Your task to perform on an android device: Open calendar and show me the fourth week of next month Image 0: 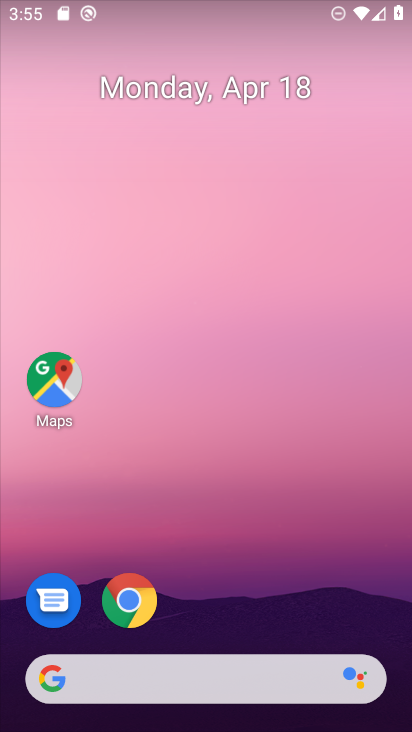
Step 0: drag from (254, 412) to (242, 151)
Your task to perform on an android device: Open calendar and show me the fourth week of next month Image 1: 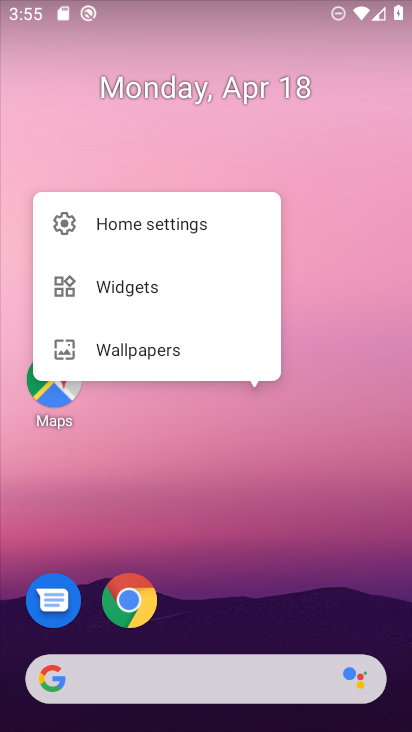
Step 1: click (359, 371)
Your task to perform on an android device: Open calendar and show me the fourth week of next month Image 2: 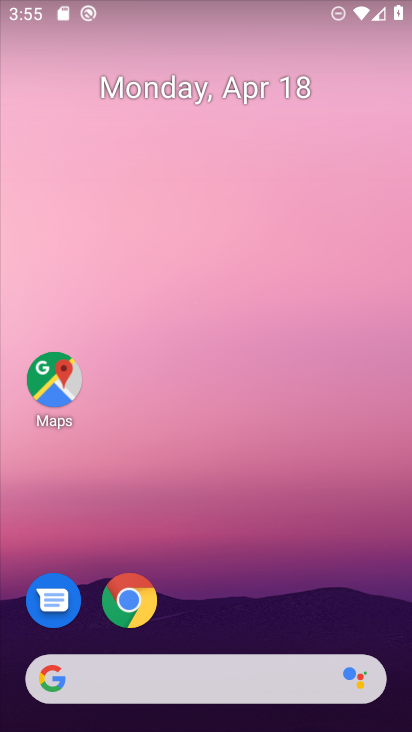
Step 2: drag from (202, 707) to (180, 153)
Your task to perform on an android device: Open calendar and show me the fourth week of next month Image 3: 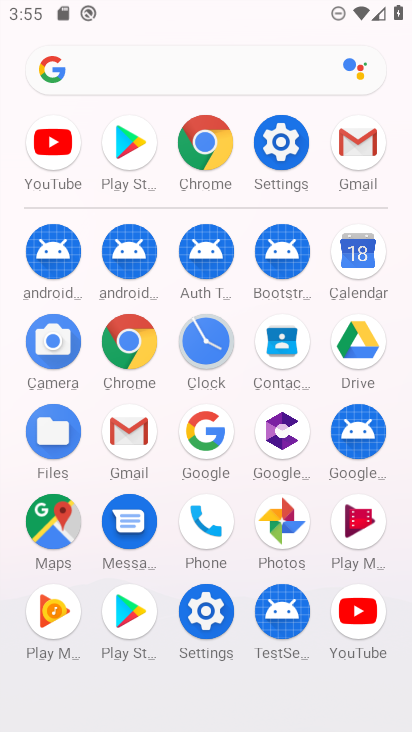
Step 3: click (344, 273)
Your task to perform on an android device: Open calendar and show me the fourth week of next month Image 4: 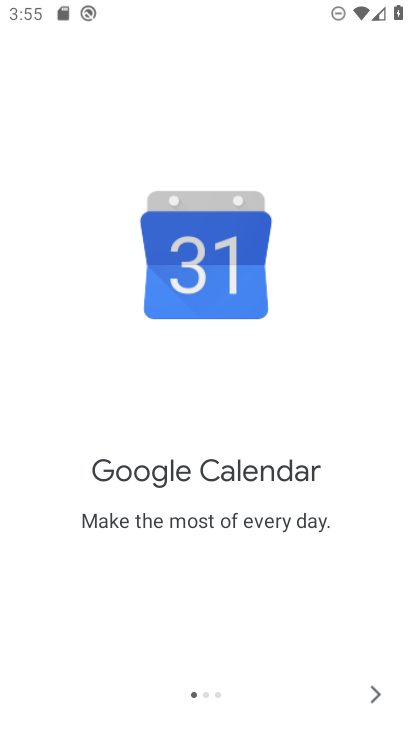
Step 4: click (374, 693)
Your task to perform on an android device: Open calendar and show me the fourth week of next month Image 5: 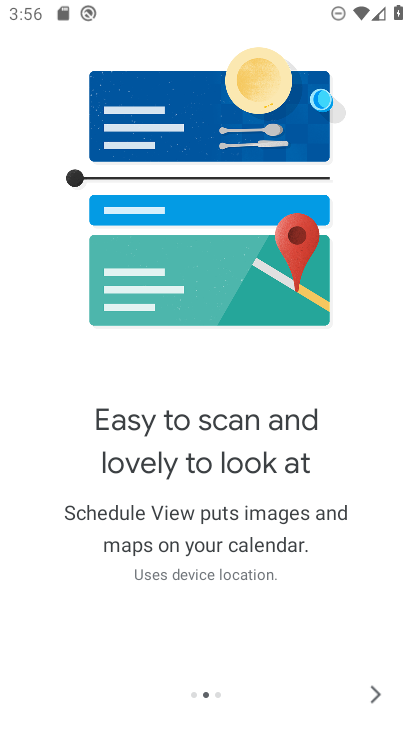
Step 5: click (374, 693)
Your task to perform on an android device: Open calendar and show me the fourth week of next month Image 6: 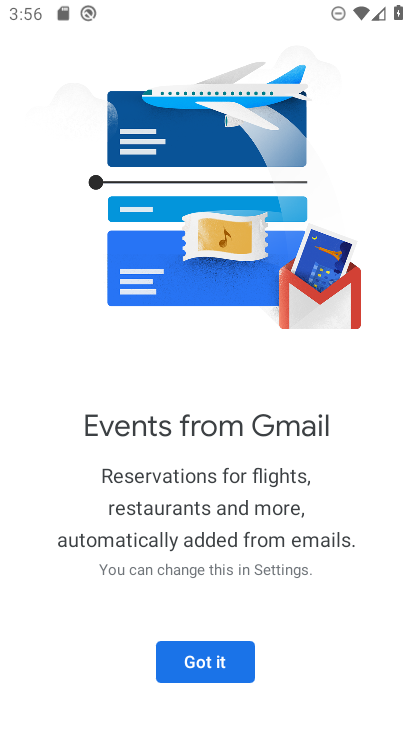
Step 6: click (207, 661)
Your task to perform on an android device: Open calendar and show me the fourth week of next month Image 7: 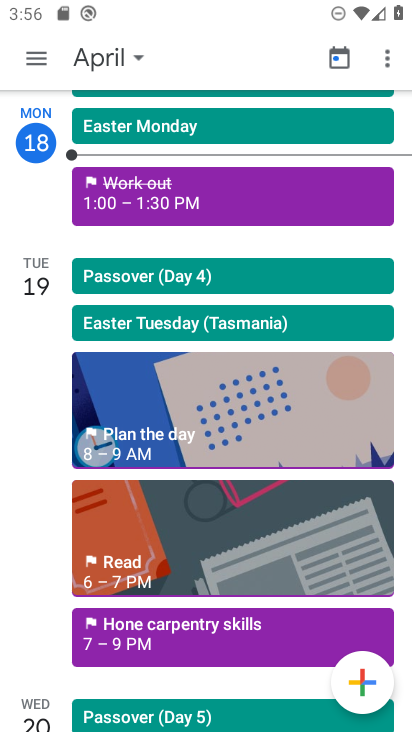
Step 7: click (29, 59)
Your task to perform on an android device: Open calendar and show me the fourth week of next month Image 8: 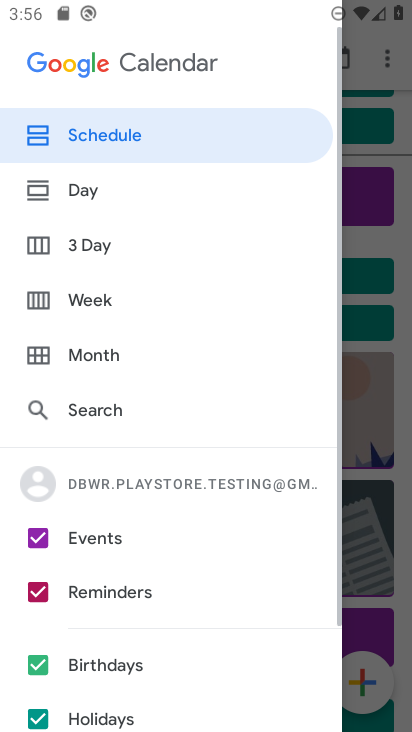
Step 8: click (88, 357)
Your task to perform on an android device: Open calendar and show me the fourth week of next month Image 9: 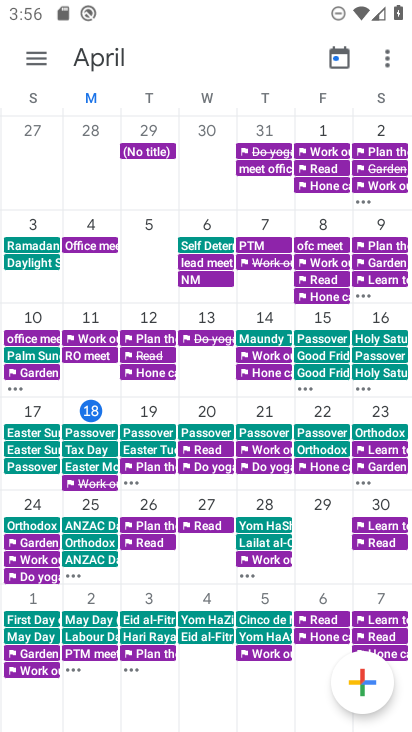
Step 9: drag from (391, 490) to (0, 466)
Your task to perform on an android device: Open calendar and show me the fourth week of next month Image 10: 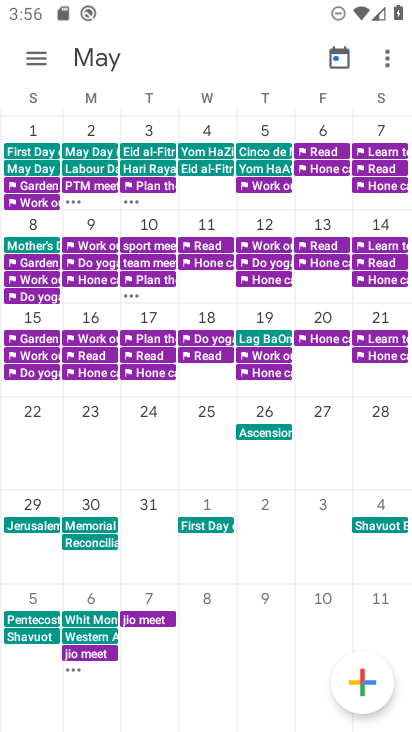
Step 10: click (90, 414)
Your task to perform on an android device: Open calendar and show me the fourth week of next month Image 11: 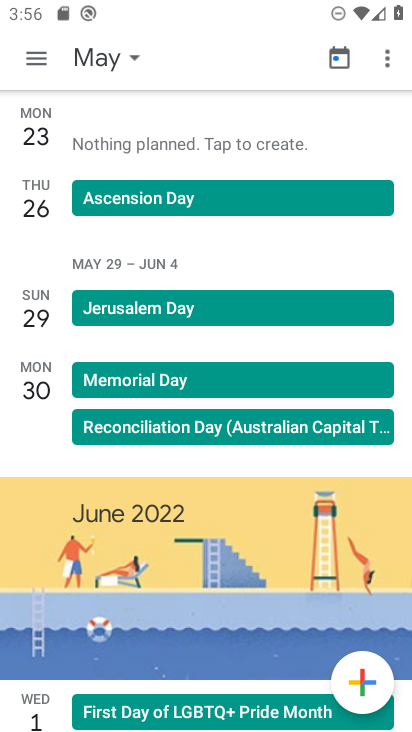
Step 11: task complete